Your task to perform on an android device: change alarm snooze length Image 0: 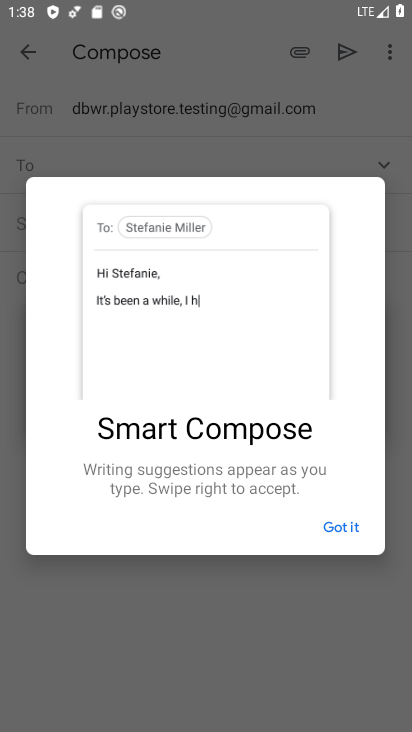
Step 0: press back button
Your task to perform on an android device: change alarm snooze length Image 1: 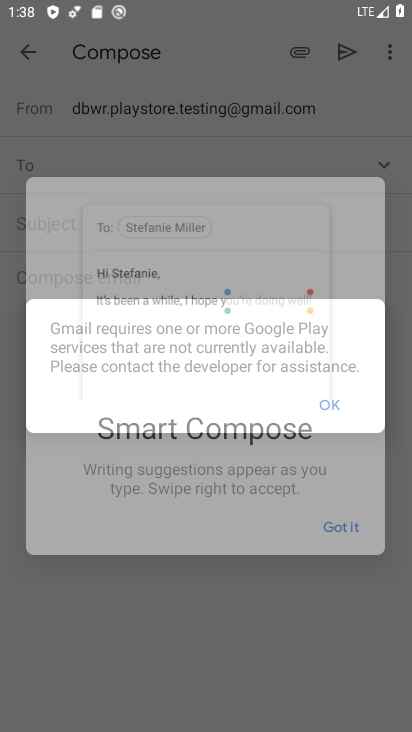
Step 1: press home button
Your task to perform on an android device: change alarm snooze length Image 2: 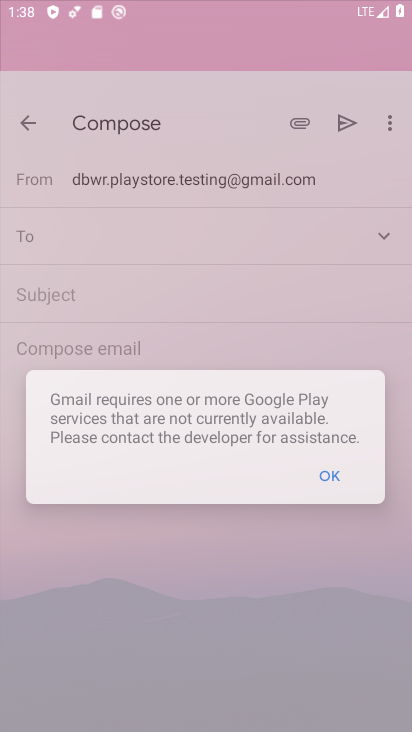
Step 2: drag from (217, 657) to (329, 41)
Your task to perform on an android device: change alarm snooze length Image 3: 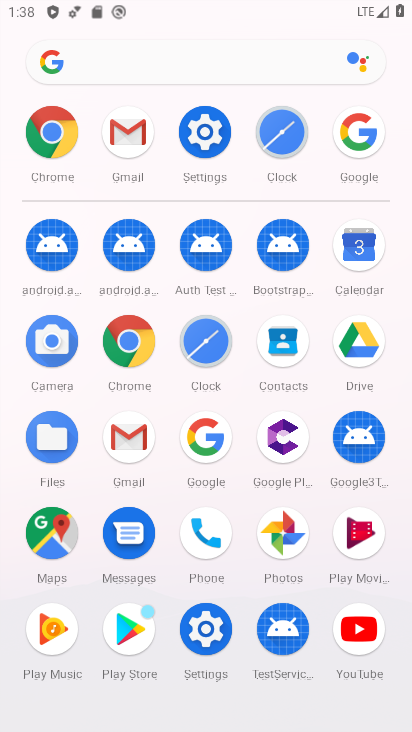
Step 3: click (204, 346)
Your task to perform on an android device: change alarm snooze length Image 4: 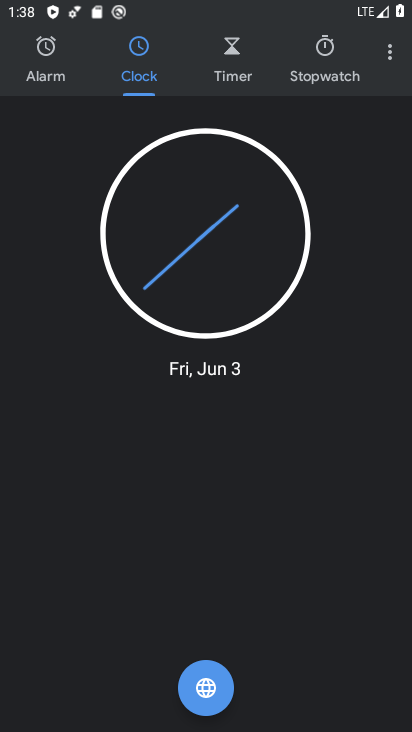
Step 4: click (388, 50)
Your task to perform on an android device: change alarm snooze length Image 5: 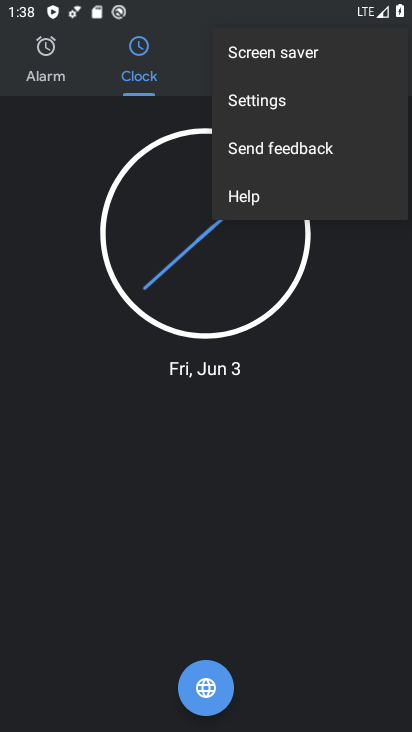
Step 5: click (292, 94)
Your task to perform on an android device: change alarm snooze length Image 6: 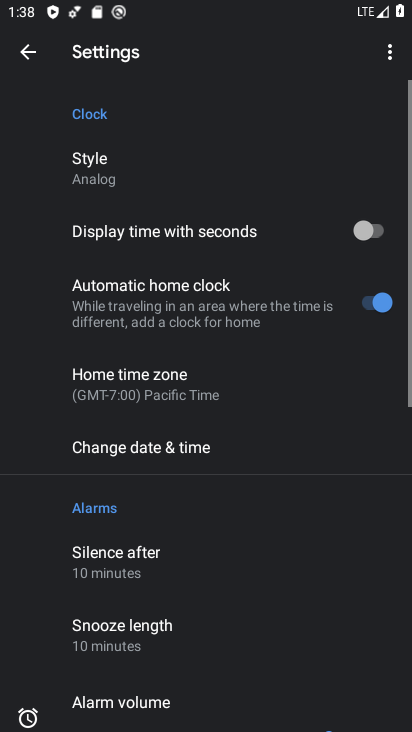
Step 6: drag from (189, 437) to (281, 86)
Your task to perform on an android device: change alarm snooze length Image 7: 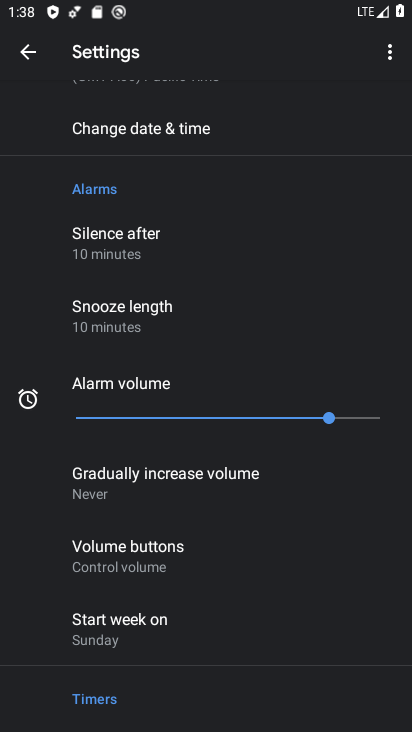
Step 7: click (152, 317)
Your task to perform on an android device: change alarm snooze length Image 8: 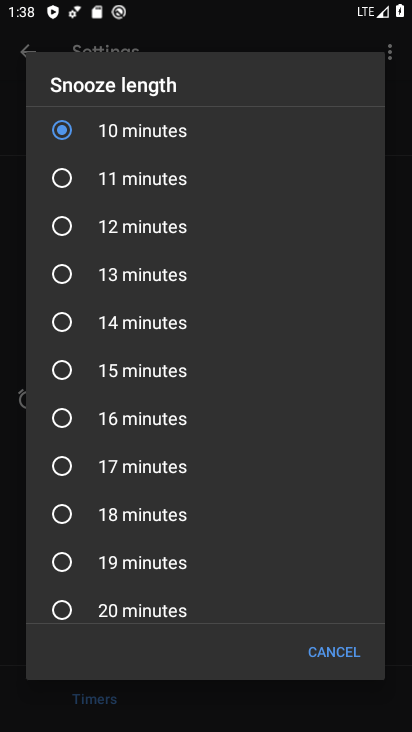
Step 8: click (131, 277)
Your task to perform on an android device: change alarm snooze length Image 9: 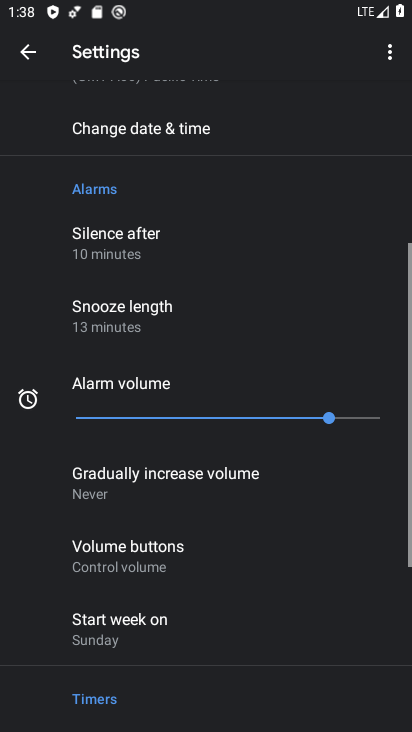
Step 9: task complete